Your task to perform on an android device: set an alarm Image 0: 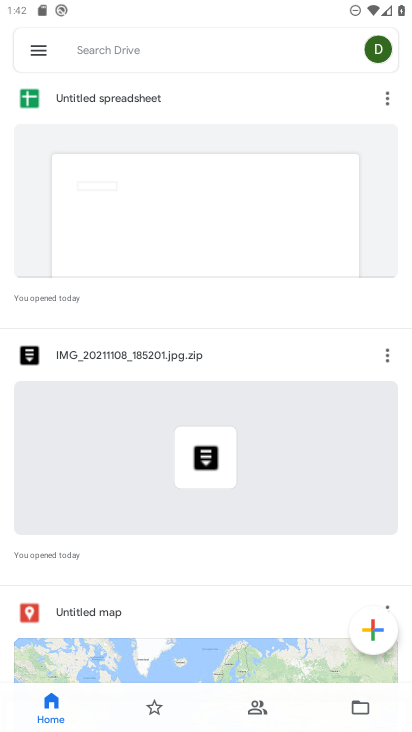
Step 0: press home button
Your task to perform on an android device: set an alarm Image 1: 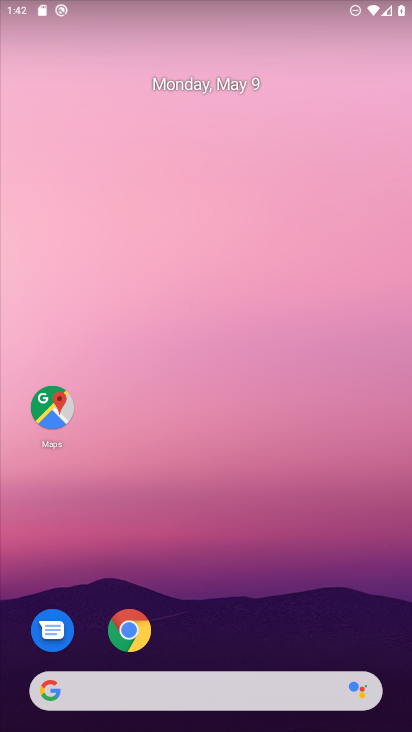
Step 1: drag from (274, 677) to (409, 226)
Your task to perform on an android device: set an alarm Image 2: 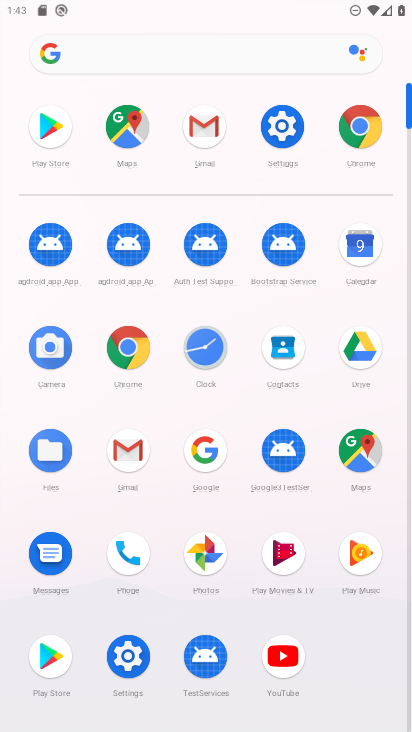
Step 2: click (214, 354)
Your task to perform on an android device: set an alarm Image 3: 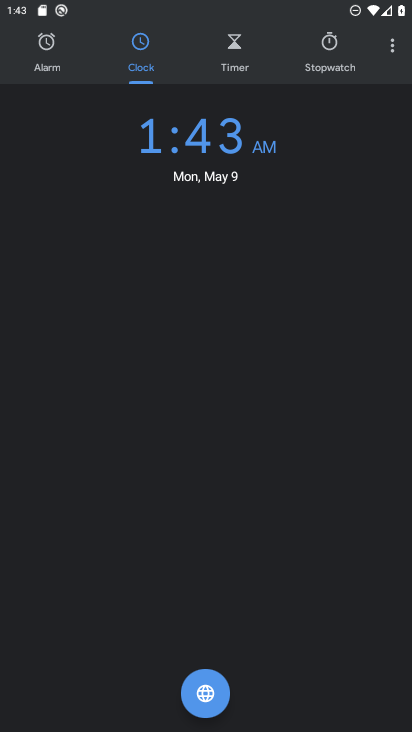
Step 3: click (51, 65)
Your task to perform on an android device: set an alarm Image 4: 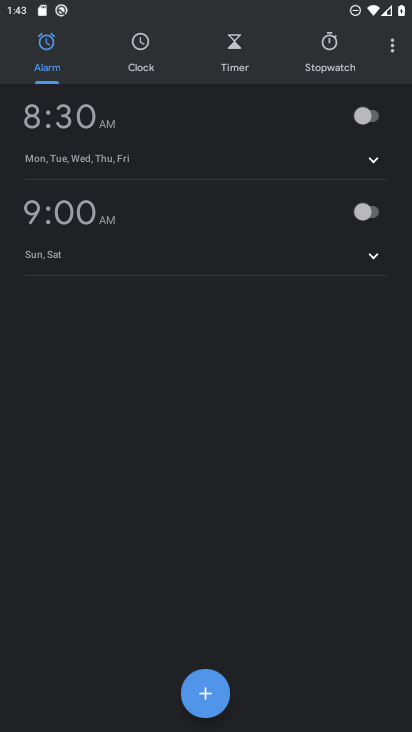
Step 4: click (352, 212)
Your task to perform on an android device: set an alarm Image 5: 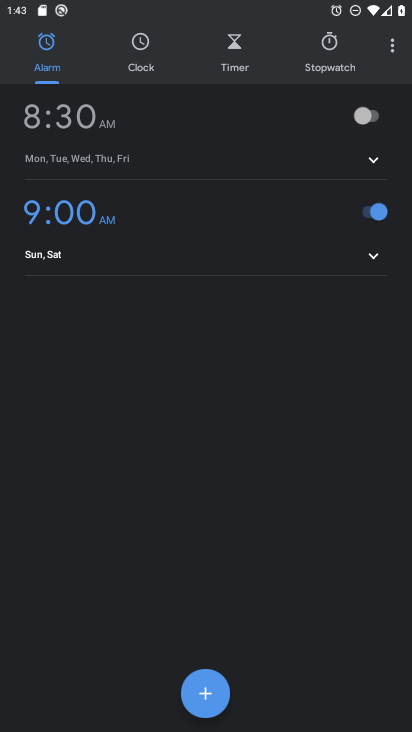
Step 5: task complete